Your task to perform on an android device: toggle priority inbox in the gmail app Image 0: 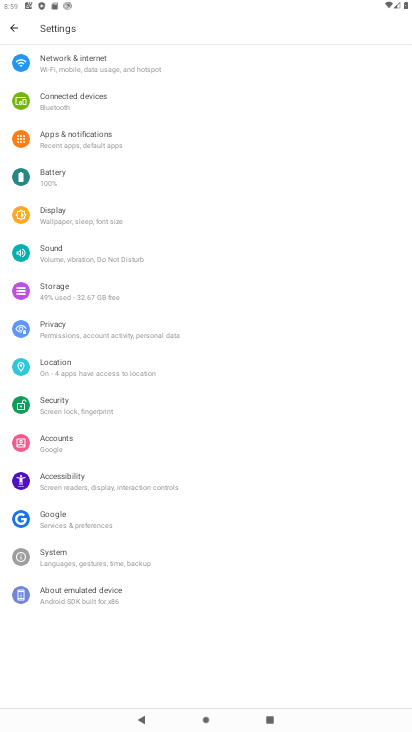
Step 0: press home button
Your task to perform on an android device: toggle priority inbox in the gmail app Image 1: 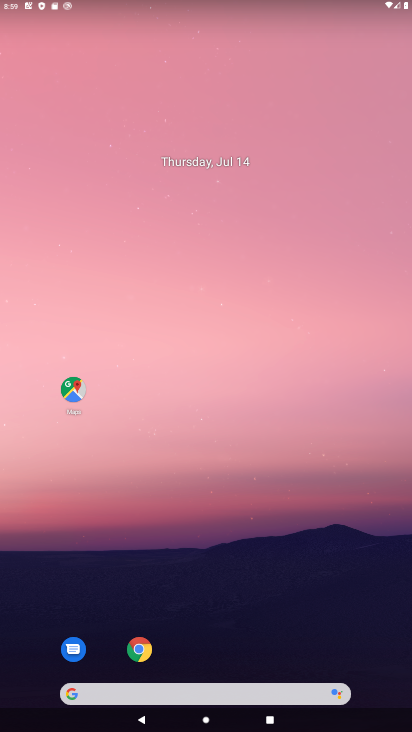
Step 1: click (292, 542)
Your task to perform on an android device: toggle priority inbox in the gmail app Image 2: 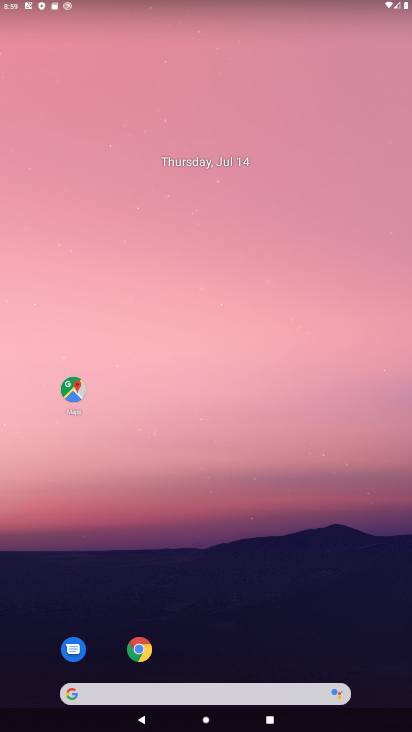
Step 2: drag from (292, 542) to (263, 6)
Your task to perform on an android device: toggle priority inbox in the gmail app Image 3: 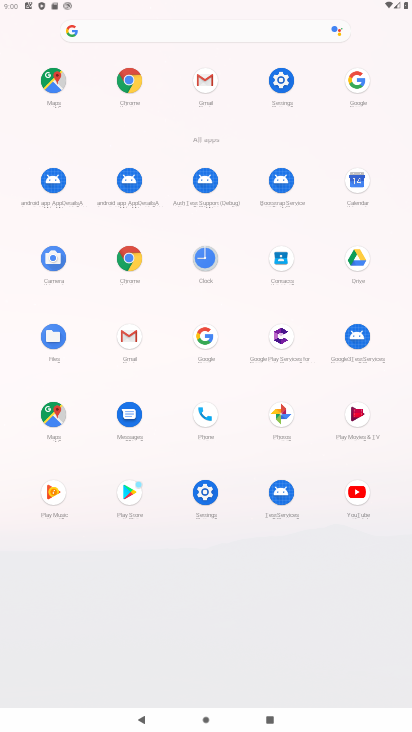
Step 3: click (204, 87)
Your task to perform on an android device: toggle priority inbox in the gmail app Image 4: 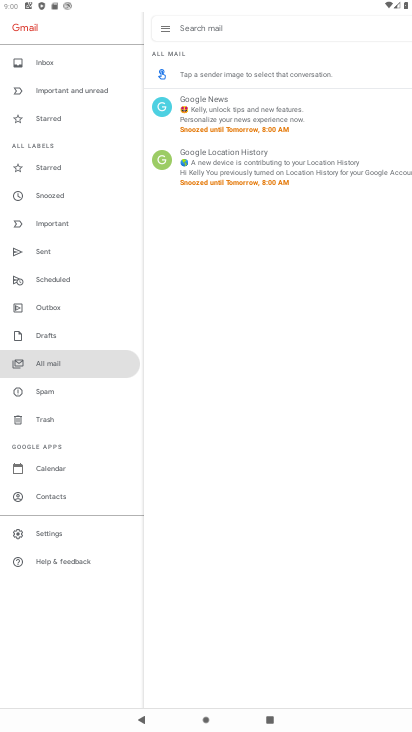
Step 4: click (76, 529)
Your task to perform on an android device: toggle priority inbox in the gmail app Image 5: 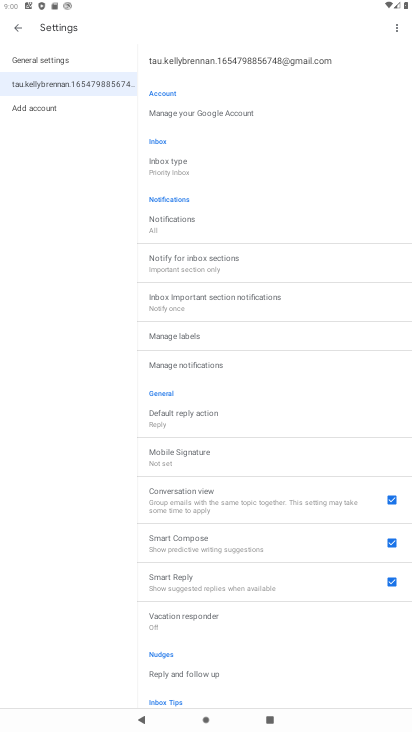
Step 5: click (202, 163)
Your task to perform on an android device: toggle priority inbox in the gmail app Image 6: 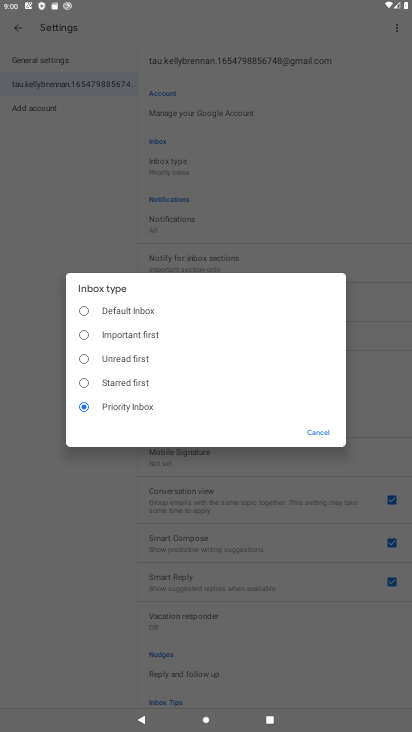
Step 6: click (113, 313)
Your task to perform on an android device: toggle priority inbox in the gmail app Image 7: 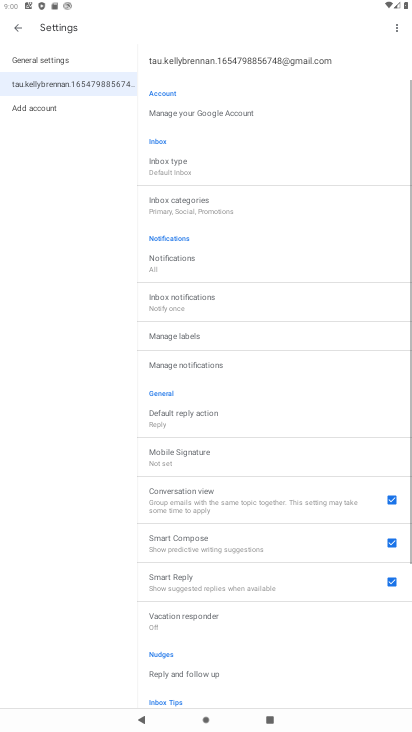
Step 7: task complete